Your task to perform on an android device: Play the last video I watched on Youtube Image 0: 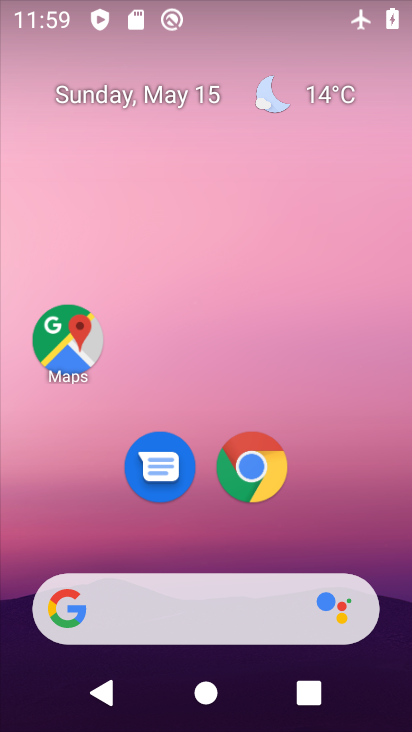
Step 0: drag from (335, 510) to (363, 155)
Your task to perform on an android device: Play the last video I watched on Youtube Image 1: 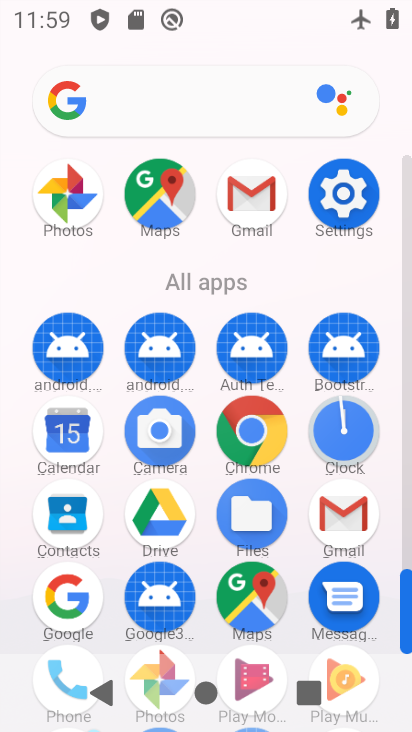
Step 1: drag from (306, 615) to (307, 188)
Your task to perform on an android device: Play the last video I watched on Youtube Image 2: 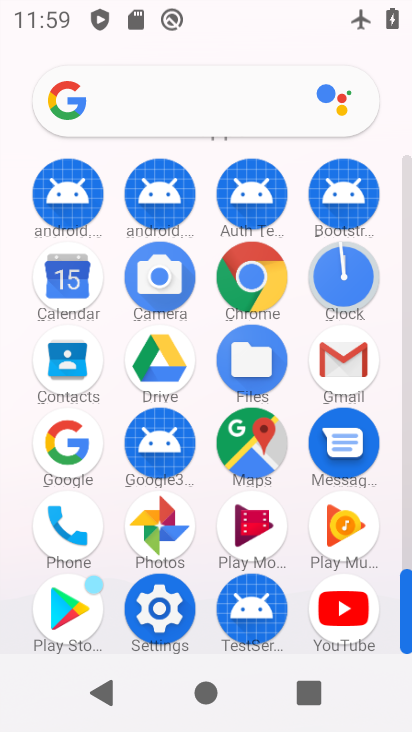
Step 2: click (335, 593)
Your task to perform on an android device: Play the last video I watched on Youtube Image 3: 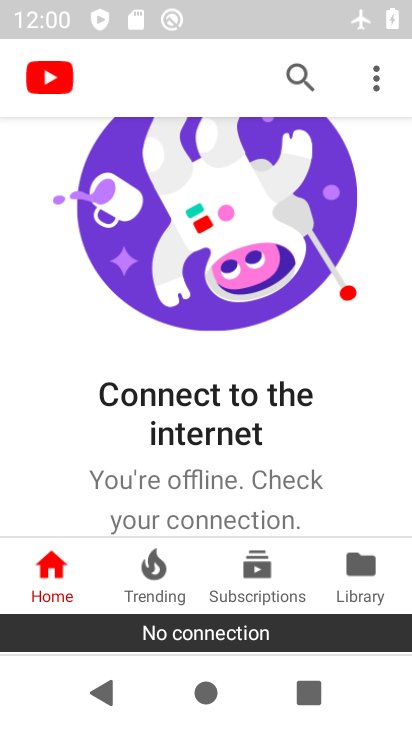
Step 3: click (295, 72)
Your task to perform on an android device: Play the last video I watched on Youtube Image 4: 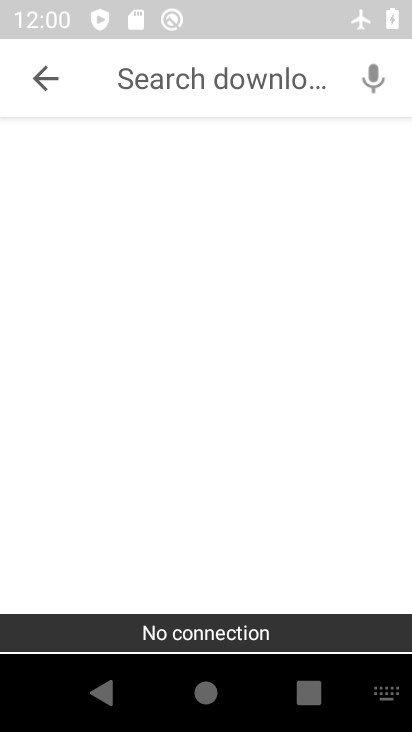
Step 4: task complete